Your task to perform on an android device: What is the recent news? Image 0: 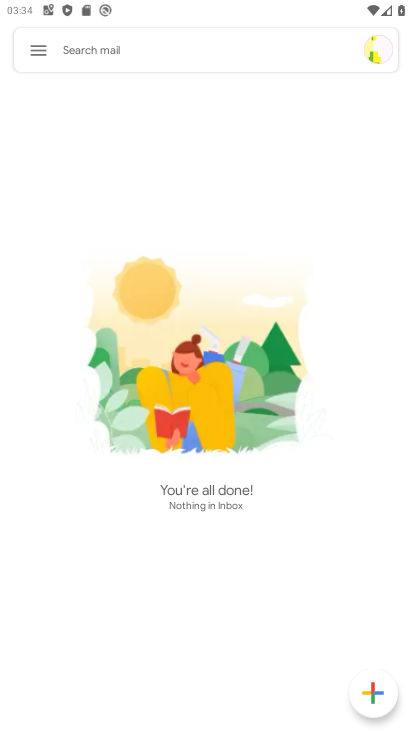
Step 0: press home button
Your task to perform on an android device: What is the recent news? Image 1: 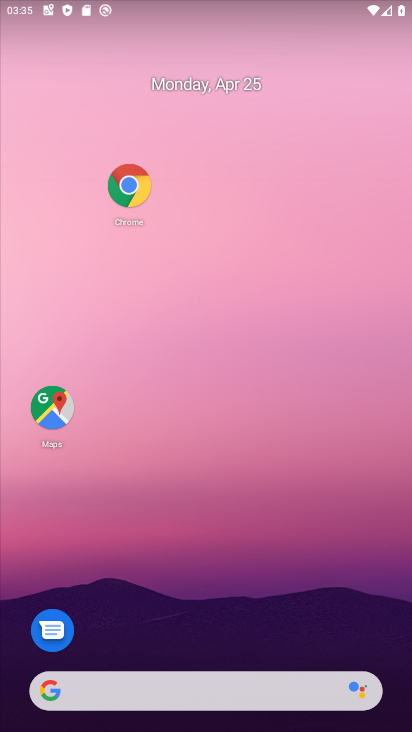
Step 1: click (127, 180)
Your task to perform on an android device: What is the recent news? Image 2: 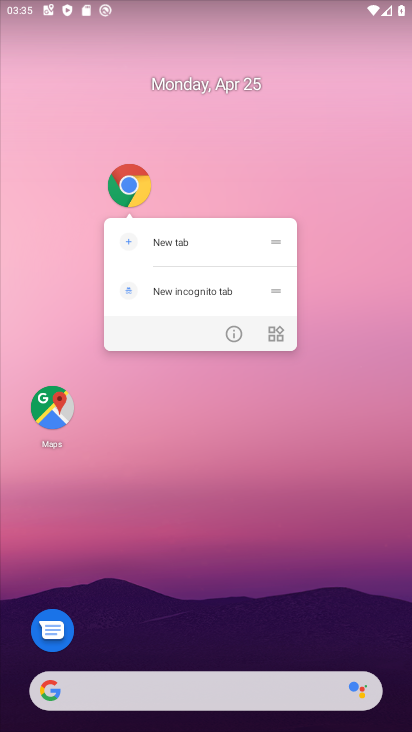
Step 2: click (238, 336)
Your task to perform on an android device: What is the recent news? Image 3: 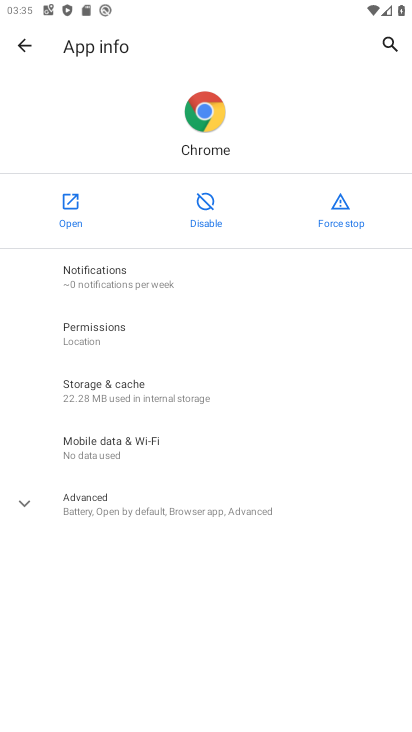
Step 3: click (75, 219)
Your task to perform on an android device: What is the recent news? Image 4: 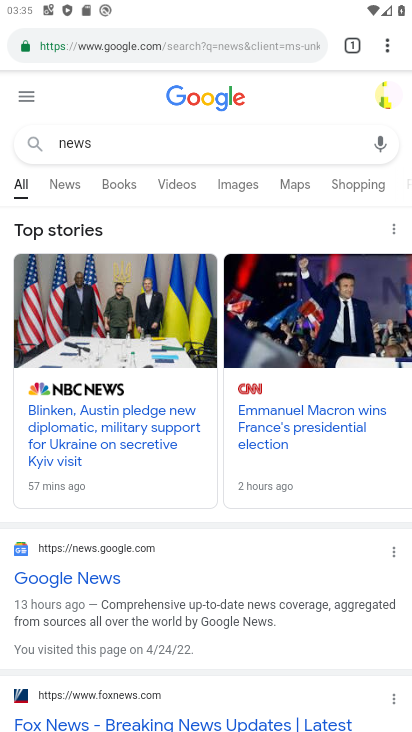
Step 4: click (131, 152)
Your task to perform on an android device: What is the recent news? Image 5: 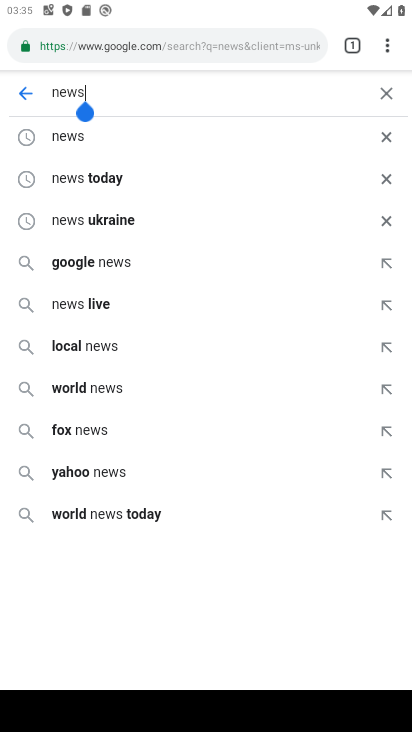
Step 5: click (396, 99)
Your task to perform on an android device: What is the recent news? Image 6: 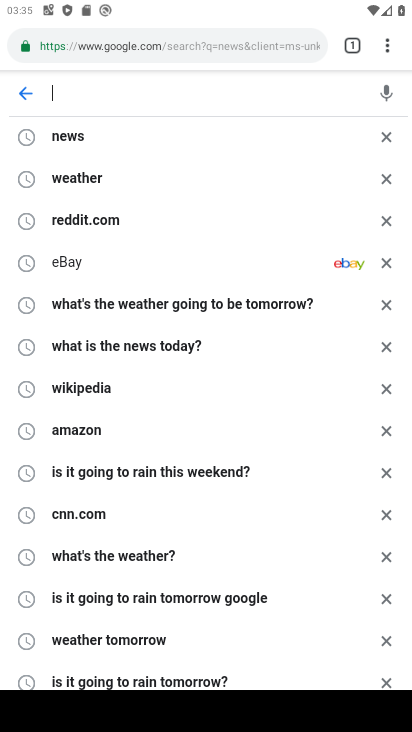
Step 6: type "recent news"
Your task to perform on an android device: What is the recent news? Image 7: 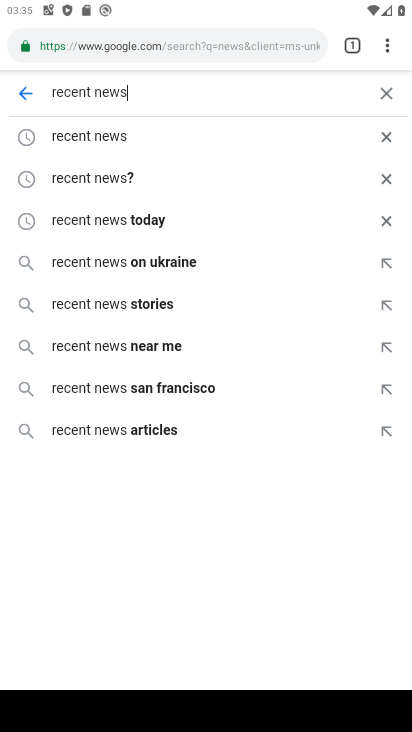
Step 7: click (109, 138)
Your task to perform on an android device: What is the recent news? Image 8: 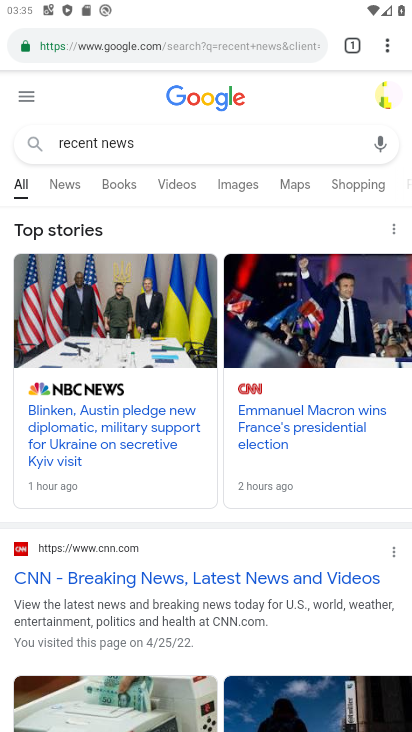
Step 8: task complete